Your task to perform on an android device: Go to Android settings Image 0: 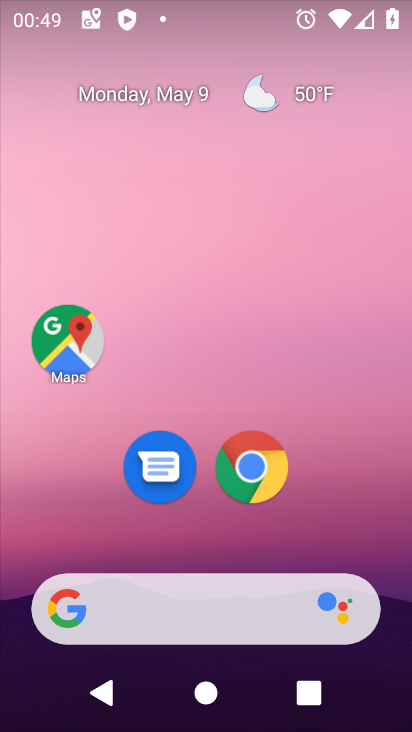
Step 0: press home button
Your task to perform on an android device: Go to Android settings Image 1: 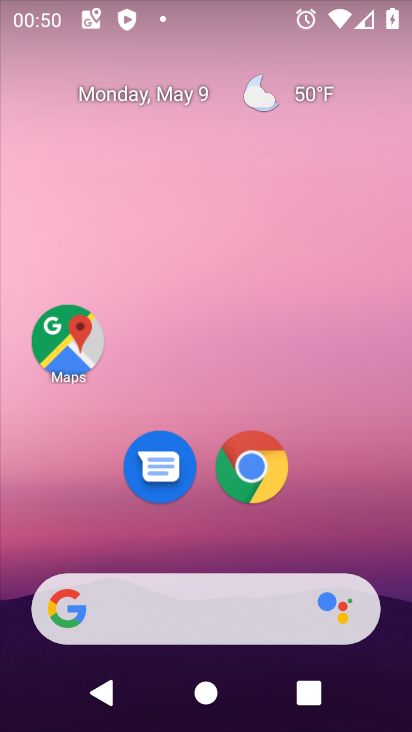
Step 1: drag from (209, 535) to (59, 26)
Your task to perform on an android device: Go to Android settings Image 2: 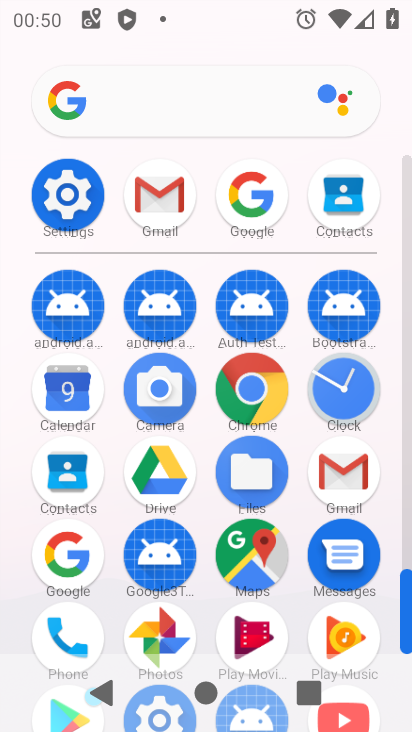
Step 2: click (65, 201)
Your task to perform on an android device: Go to Android settings Image 3: 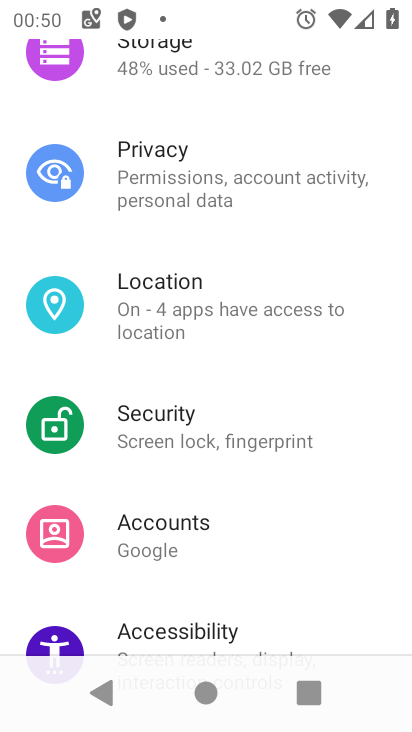
Step 3: drag from (197, 572) to (222, 84)
Your task to perform on an android device: Go to Android settings Image 4: 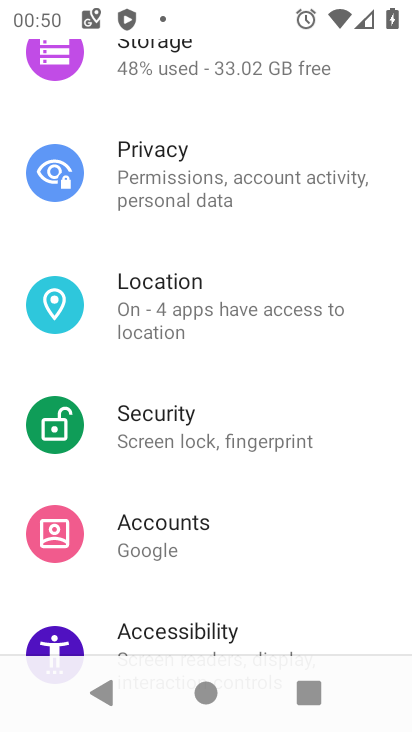
Step 4: drag from (206, 579) to (196, 41)
Your task to perform on an android device: Go to Android settings Image 5: 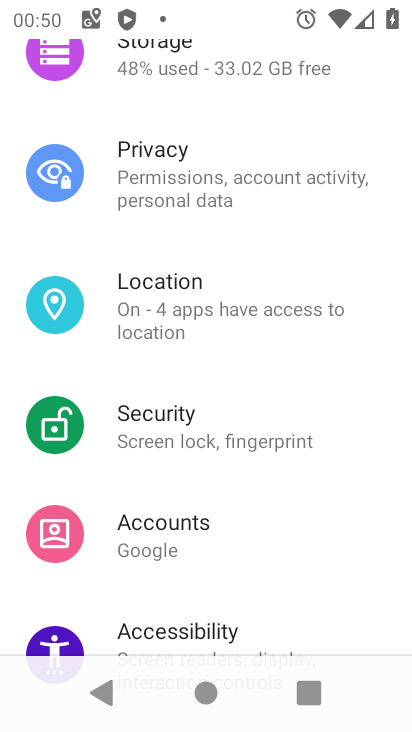
Step 5: drag from (206, 405) to (199, 29)
Your task to perform on an android device: Go to Android settings Image 6: 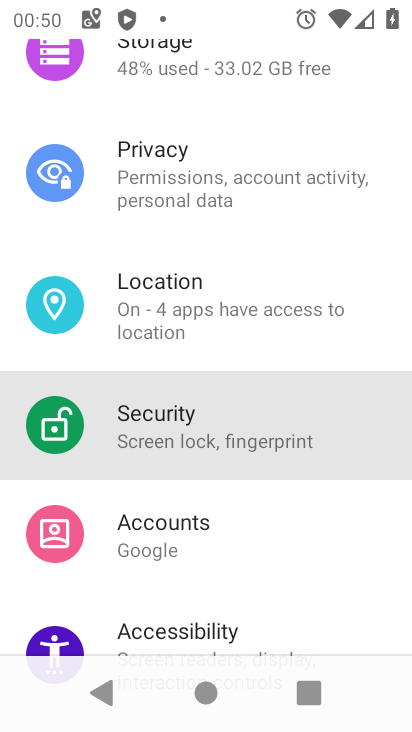
Step 6: drag from (192, 573) to (190, 140)
Your task to perform on an android device: Go to Android settings Image 7: 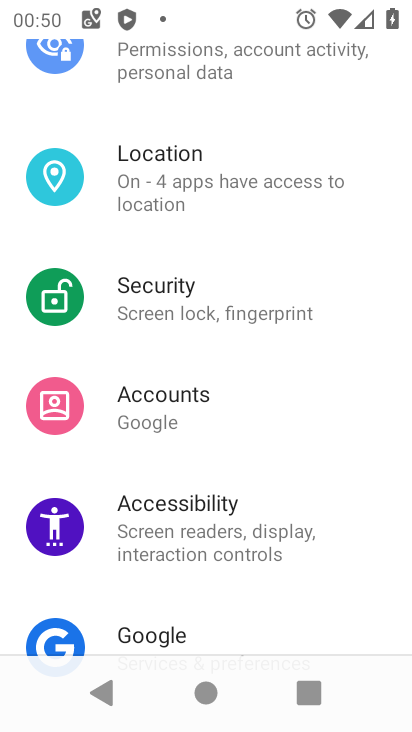
Step 7: drag from (200, 567) to (203, 25)
Your task to perform on an android device: Go to Android settings Image 8: 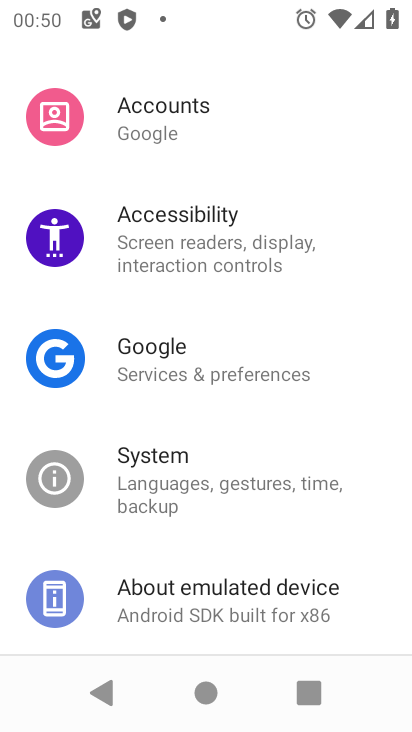
Step 8: click (199, 600)
Your task to perform on an android device: Go to Android settings Image 9: 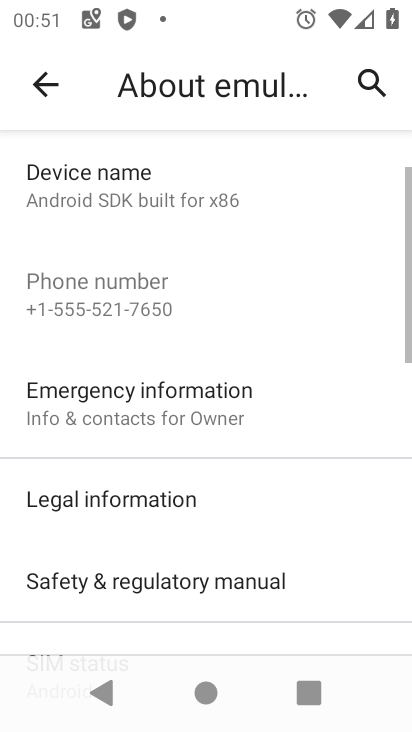
Step 9: drag from (157, 615) to (149, 124)
Your task to perform on an android device: Go to Android settings Image 10: 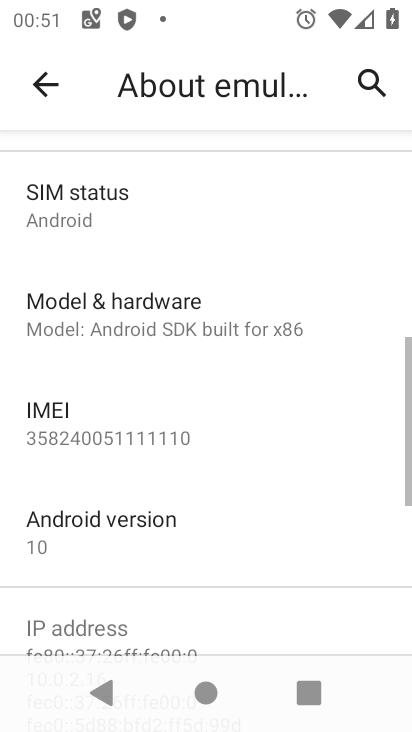
Step 10: click (112, 540)
Your task to perform on an android device: Go to Android settings Image 11: 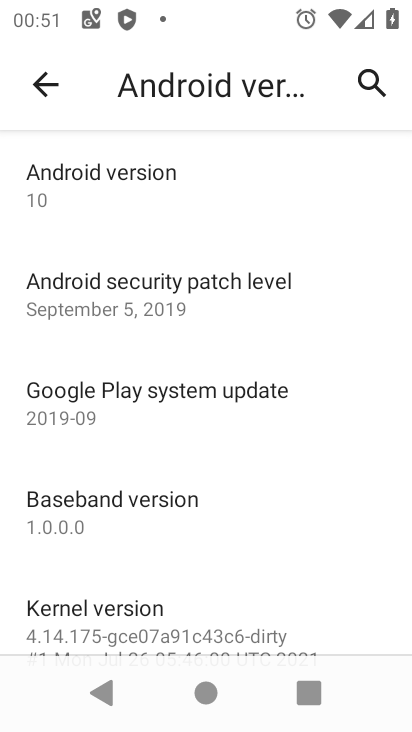
Step 11: task complete